Your task to perform on an android device: toggle sleep mode Image 0: 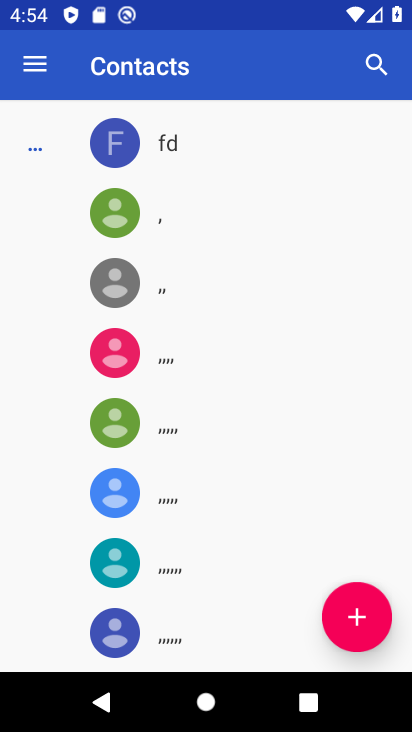
Step 0: press home button
Your task to perform on an android device: toggle sleep mode Image 1: 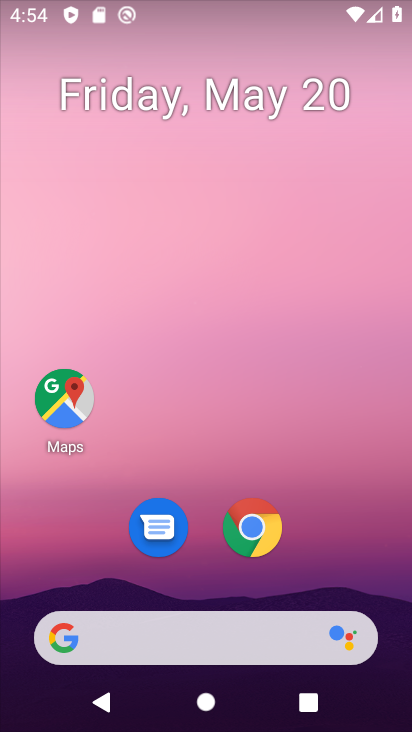
Step 1: drag from (302, 591) to (256, 25)
Your task to perform on an android device: toggle sleep mode Image 2: 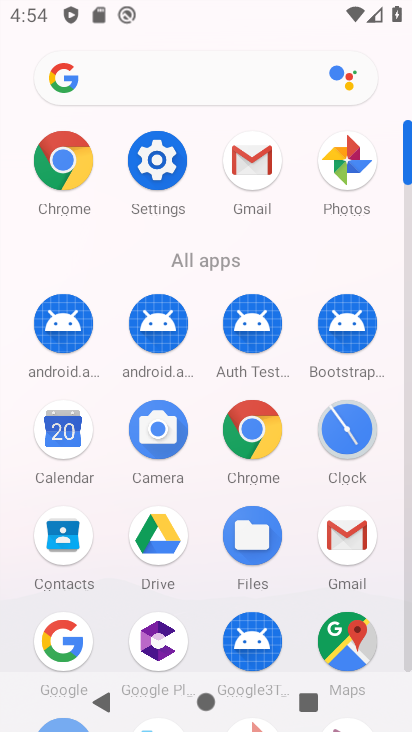
Step 2: click (174, 177)
Your task to perform on an android device: toggle sleep mode Image 3: 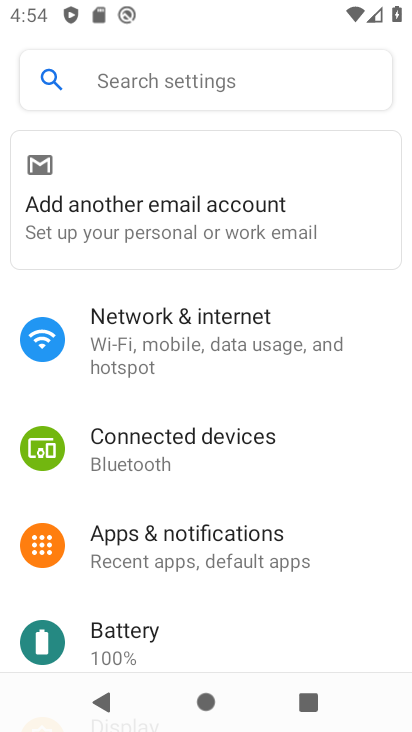
Step 3: drag from (249, 588) to (261, 156)
Your task to perform on an android device: toggle sleep mode Image 4: 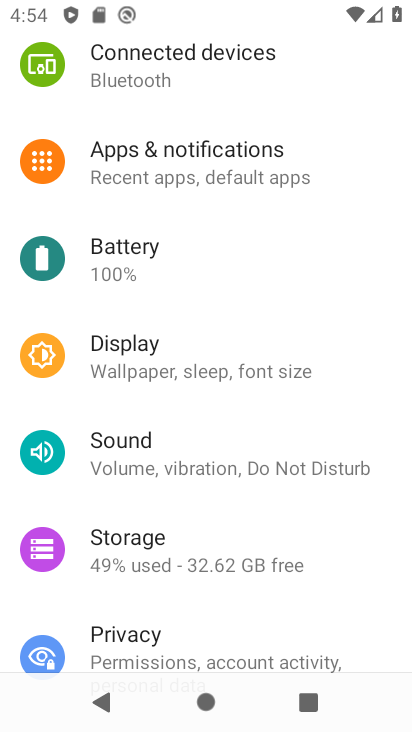
Step 4: click (246, 365)
Your task to perform on an android device: toggle sleep mode Image 5: 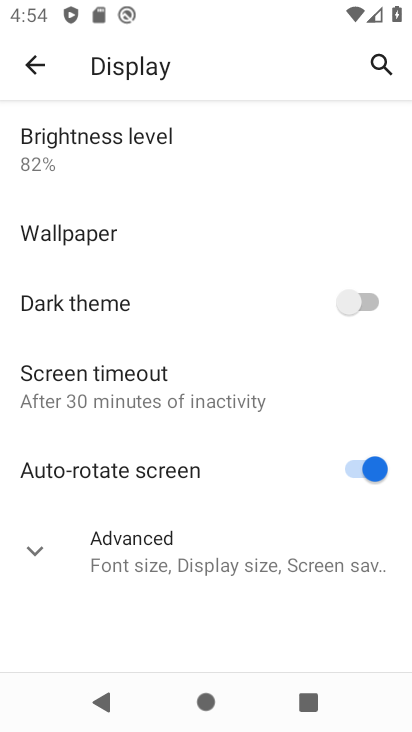
Step 5: task complete